Your task to perform on an android device: clear all cookies in the chrome app Image 0: 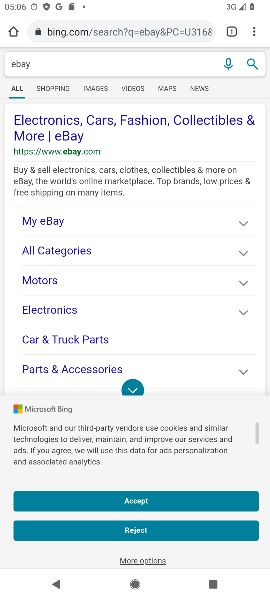
Step 0: press home button
Your task to perform on an android device: clear all cookies in the chrome app Image 1: 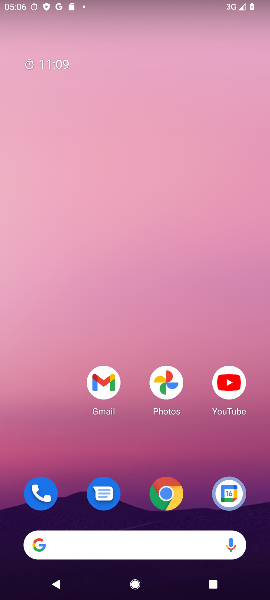
Step 1: drag from (30, 441) to (52, 158)
Your task to perform on an android device: clear all cookies in the chrome app Image 2: 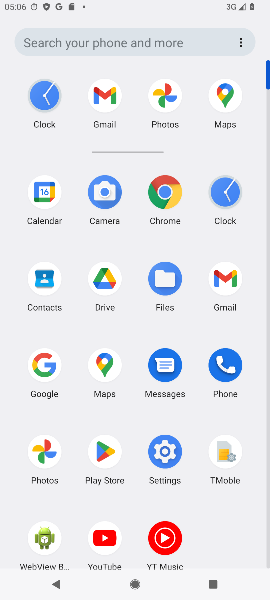
Step 2: click (164, 190)
Your task to perform on an android device: clear all cookies in the chrome app Image 3: 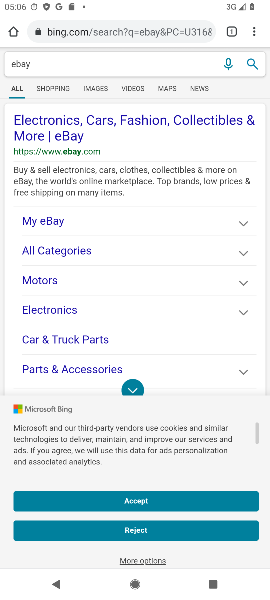
Step 3: click (253, 35)
Your task to perform on an android device: clear all cookies in the chrome app Image 4: 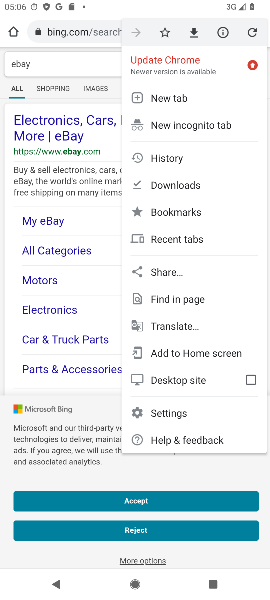
Step 4: click (213, 408)
Your task to perform on an android device: clear all cookies in the chrome app Image 5: 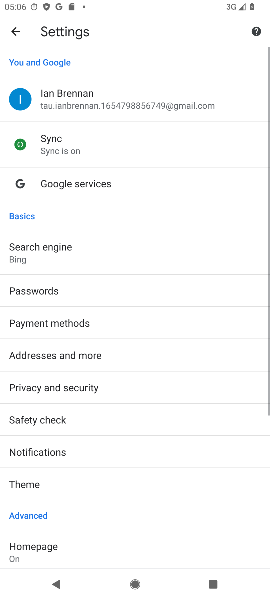
Step 5: drag from (194, 431) to (200, 343)
Your task to perform on an android device: clear all cookies in the chrome app Image 6: 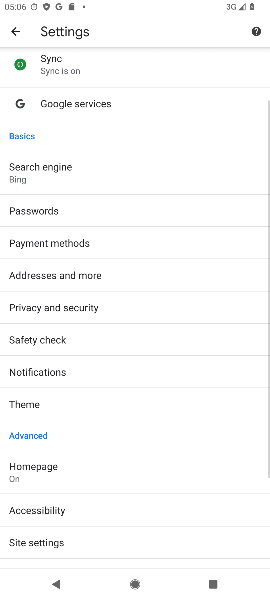
Step 6: drag from (200, 428) to (194, 304)
Your task to perform on an android device: clear all cookies in the chrome app Image 7: 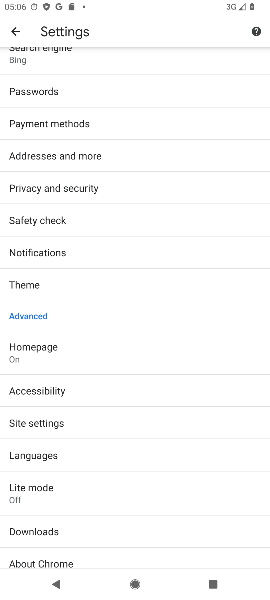
Step 7: drag from (198, 439) to (196, 307)
Your task to perform on an android device: clear all cookies in the chrome app Image 8: 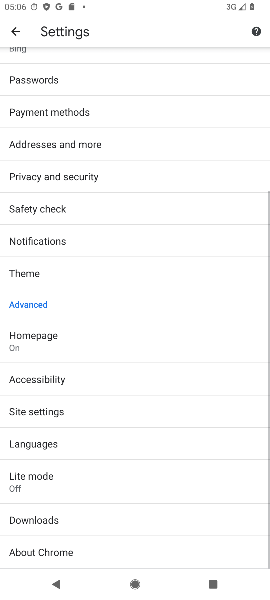
Step 8: drag from (193, 221) to (189, 332)
Your task to perform on an android device: clear all cookies in the chrome app Image 9: 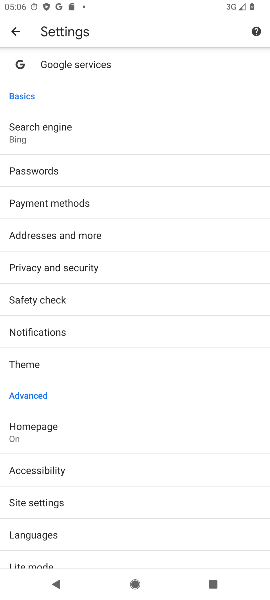
Step 9: drag from (185, 149) to (192, 374)
Your task to perform on an android device: clear all cookies in the chrome app Image 10: 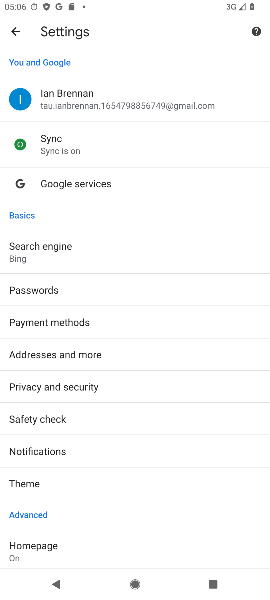
Step 10: click (157, 383)
Your task to perform on an android device: clear all cookies in the chrome app Image 11: 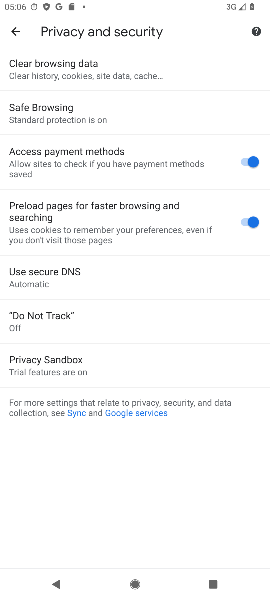
Step 11: drag from (193, 428) to (208, 306)
Your task to perform on an android device: clear all cookies in the chrome app Image 12: 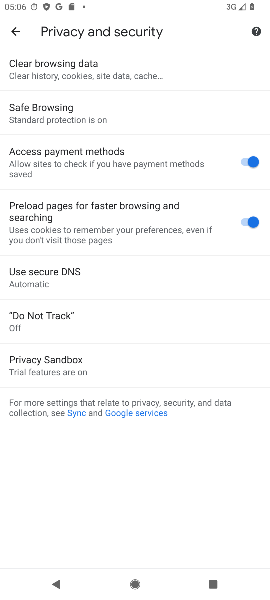
Step 12: click (113, 68)
Your task to perform on an android device: clear all cookies in the chrome app Image 13: 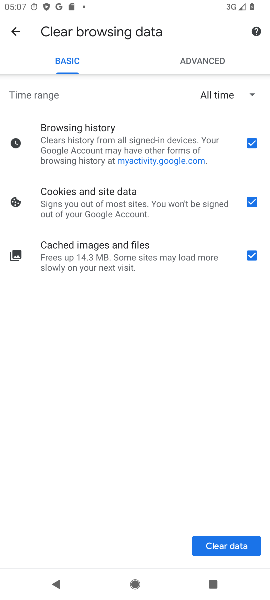
Step 13: click (226, 547)
Your task to perform on an android device: clear all cookies in the chrome app Image 14: 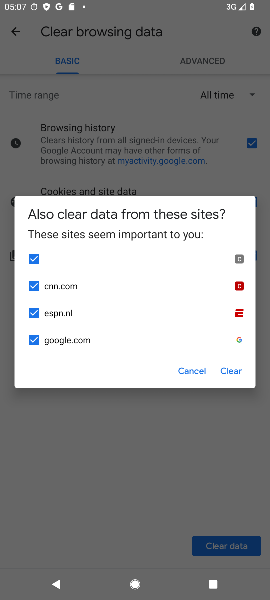
Step 14: click (226, 374)
Your task to perform on an android device: clear all cookies in the chrome app Image 15: 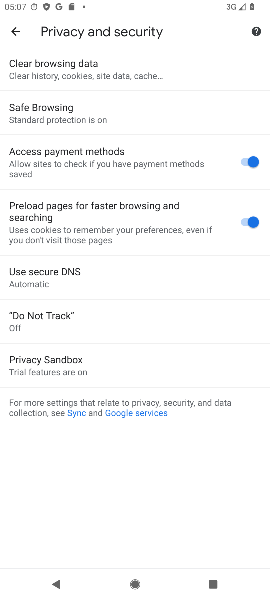
Step 15: task complete